Your task to perform on an android device: turn smart compose on in the gmail app Image 0: 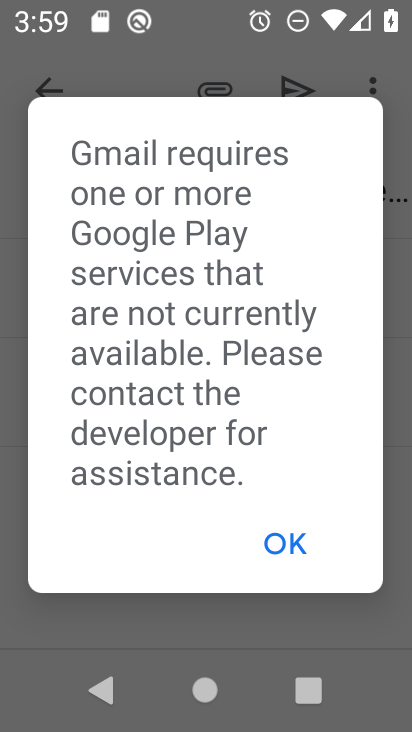
Step 0: press home button
Your task to perform on an android device: turn smart compose on in the gmail app Image 1: 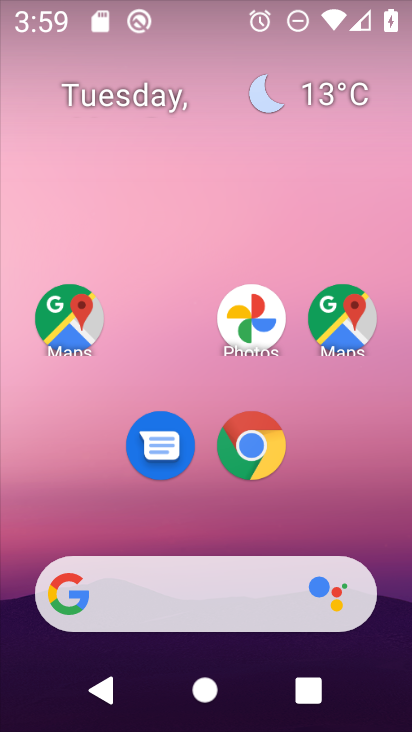
Step 1: drag from (392, 561) to (404, 500)
Your task to perform on an android device: turn smart compose on in the gmail app Image 2: 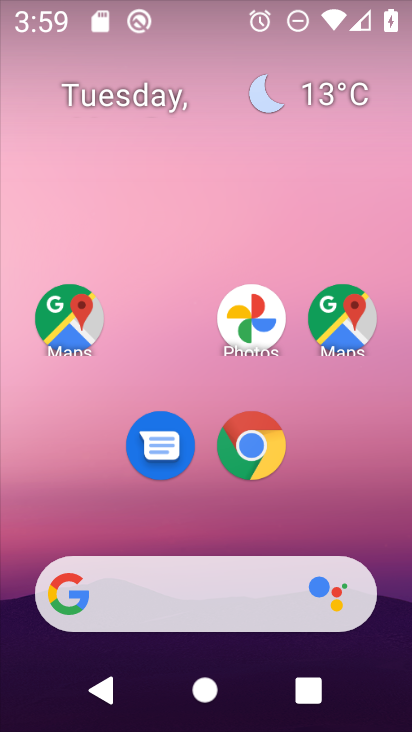
Step 2: drag from (268, 277) to (395, 338)
Your task to perform on an android device: turn smart compose on in the gmail app Image 3: 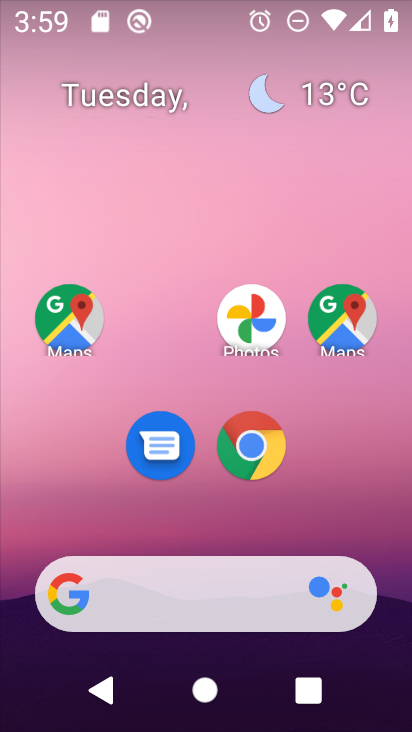
Step 3: drag from (240, 311) to (243, 83)
Your task to perform on an android device: turn smart compose on in the gmail app Image 4: 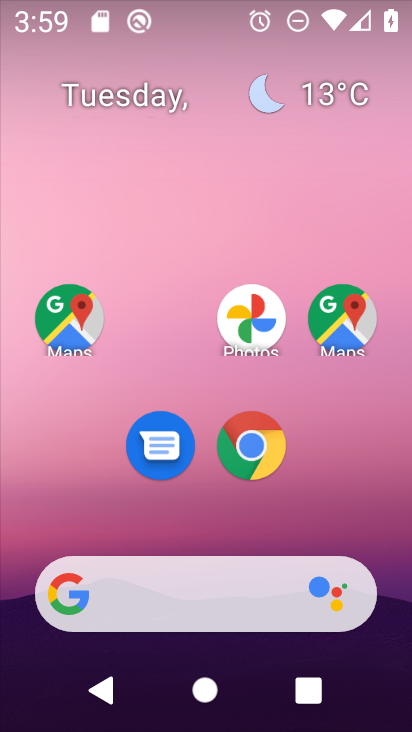
Step 4: drag from (368, 482) to (379, 102)
Your task to perform on an android device: turn smart compose on in the gmail app Image 5: 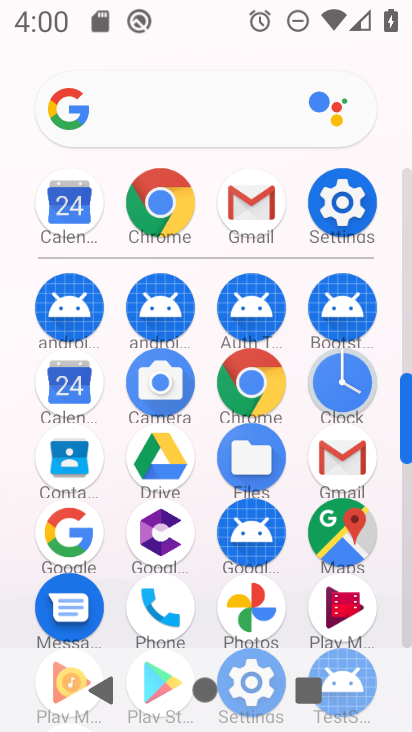
Step 5: click (348, 466)
Your task to perform on an android device: turn smart compose on in the gmail app Image 6: 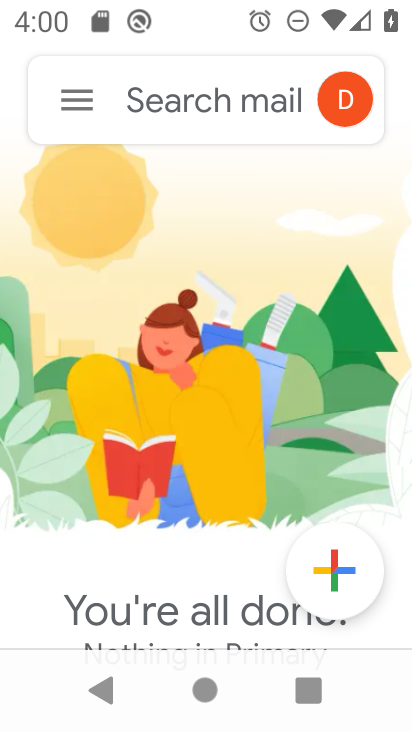
Step 6: click (82, 114)
Your task to perform on an android device: turn smart compose on in the gmail app Image 7: 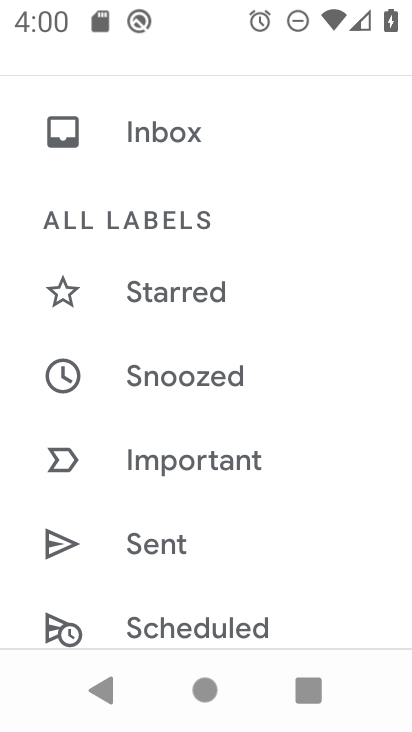
Step 7: drag from (320, 274) to (329, 376)
Your task to perform on an android device: turn smart compose on in the gmail app Image 8: 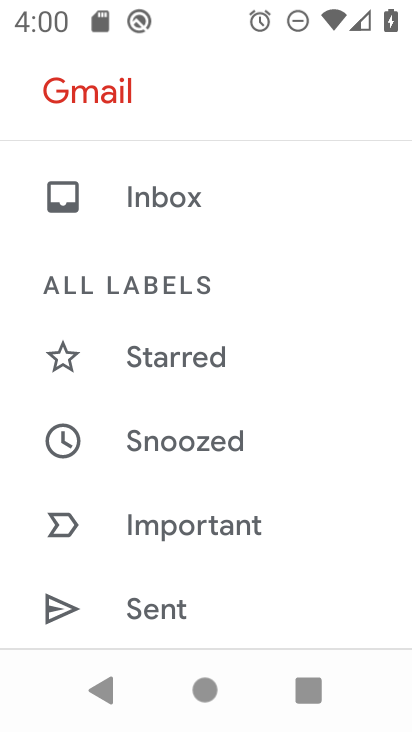
Step 8: drag from (314, 220) to (306, 346)
Your task to perform on an android device: turn smart compose on in the gmail app Image 9: 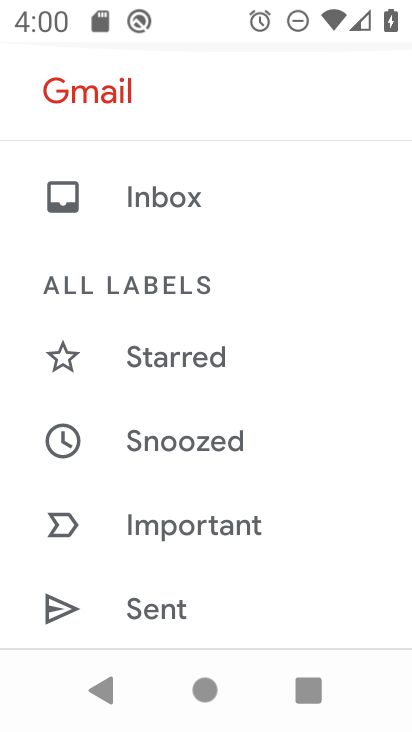
Step 9: drag from (316, 388) to (318, 276)
Your task to perform on an android device: turn smart compose on in the gmail app Image 10: 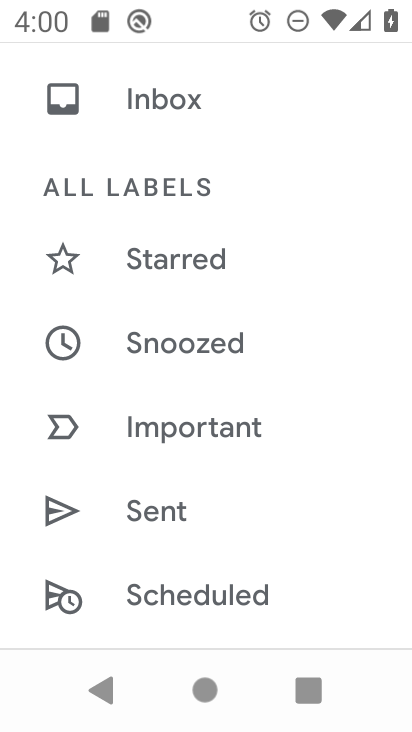
Step 10: drag from (314, 374) to (318, 329)
Your task to perform on an android device: turn smart compose on in the gmail app Image 11: 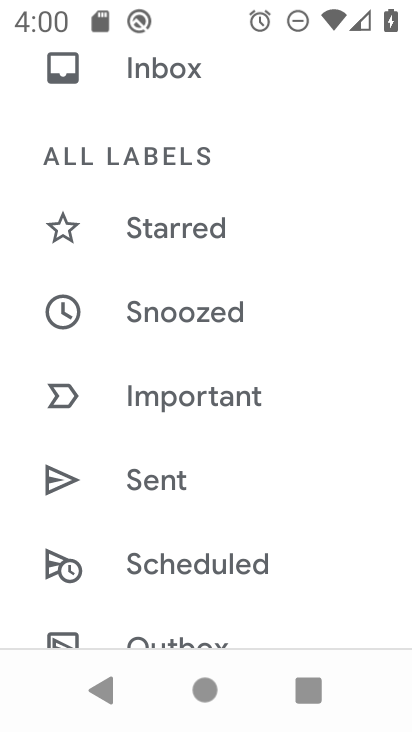
Step 11: drag from (318, 397) to (315, 343)
Your task to perform on an android device: turn smart compose on in the gmail app Image 12: 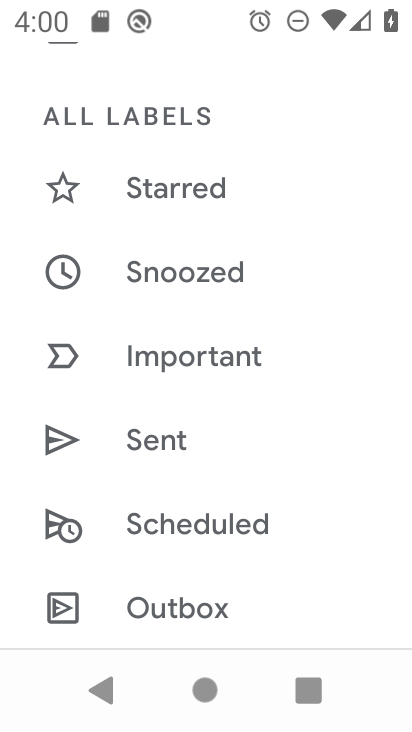
Step 12: drag from (310, 423) to (308, 334)
Your task to perform on an android device: turn smart compose on in the gmail app Image 13: 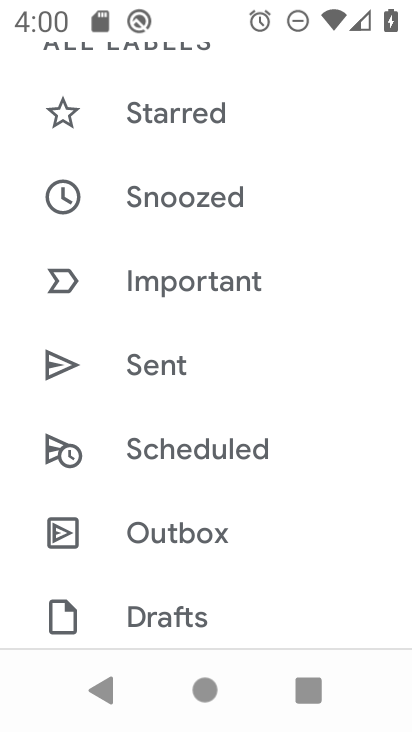
Step 13: drag from (321, 425) to (319, 353)
Your task to perform on an android device: turn smart compose on in the gmail app Image 14: 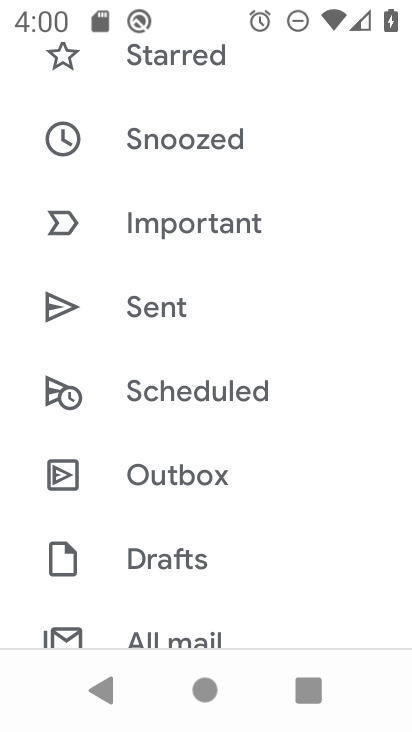
Step 14: drag from (325, 443) to (339, 384)
Your task to perform on an android device: turn smart compose on in the gmail app Image 15: 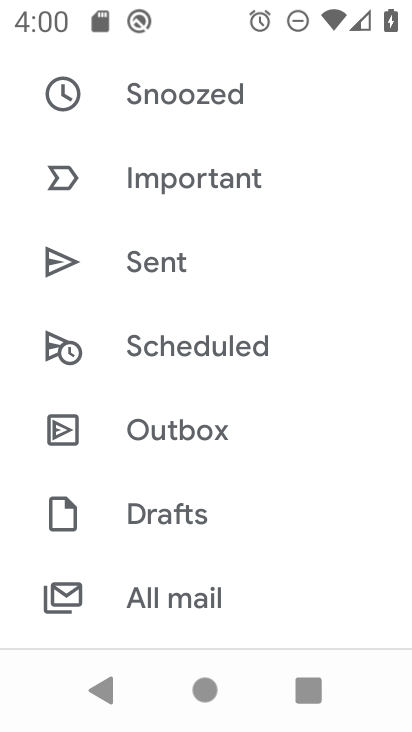
Step 15: drag from (336, 469) to (345, 396)
Your task to perform on an android device: turn smart compose on in the gmail app Image 16: 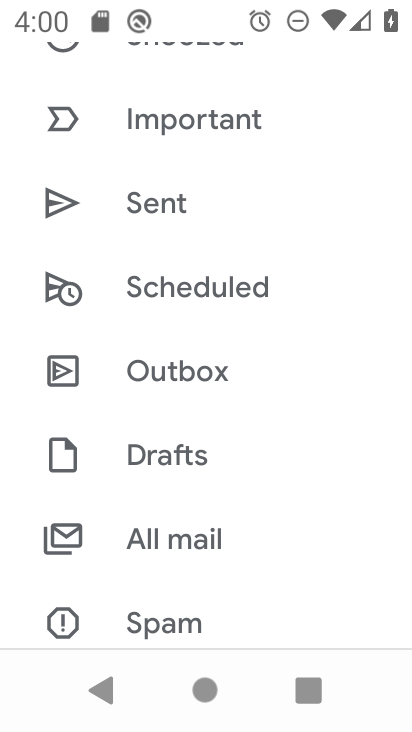
Step 16: drag from (335, 459) to (343, 393)
Your task to perform on an android device: turn smart compose on in the gmail app Image 17: 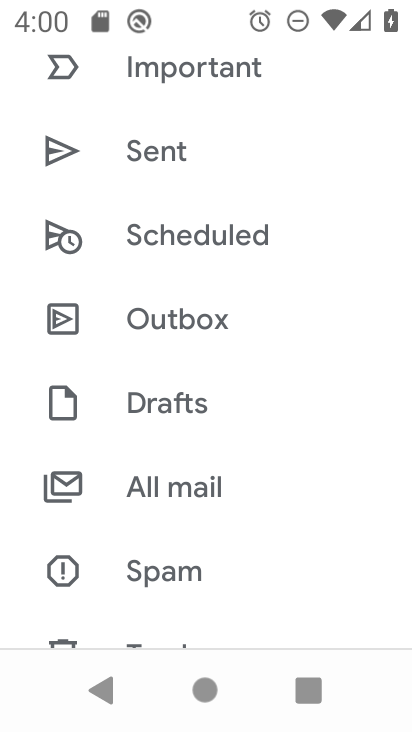
Step 17: drag from (328, 489) to (333, 414)
Your task to perform on an android device: turn smart compose on in the gmail app Image 18: 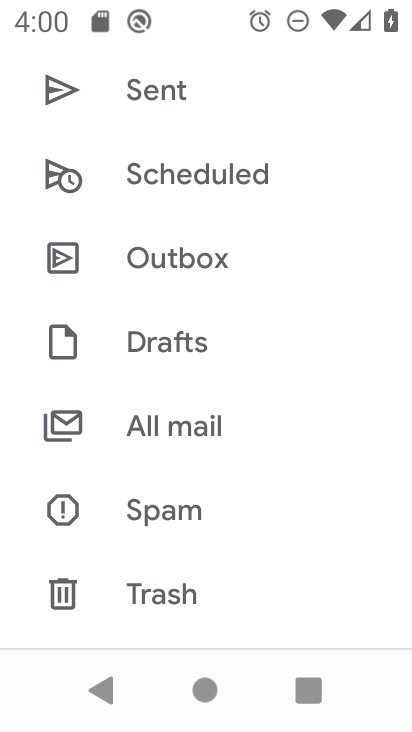
Step 18: drag from (346, 491) to (338, 440)
Your task to perform on an android device: turn smart compose on in the gmail app Image 19: 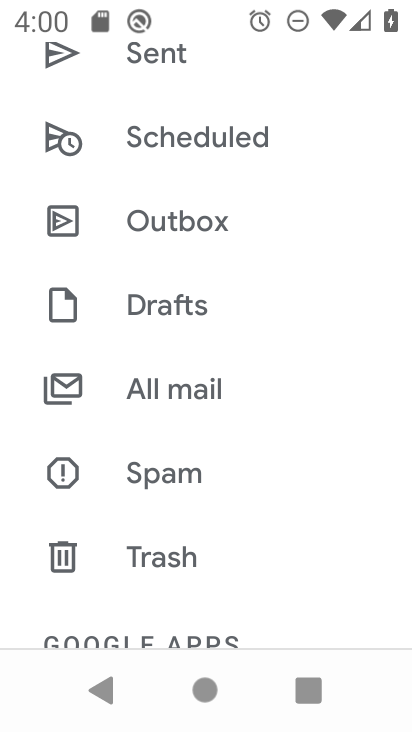
Step 19: drag from (314, 530) to (312, 464)
Your task to perform on an android device: turn smart compose on in the gmail app Image 20: 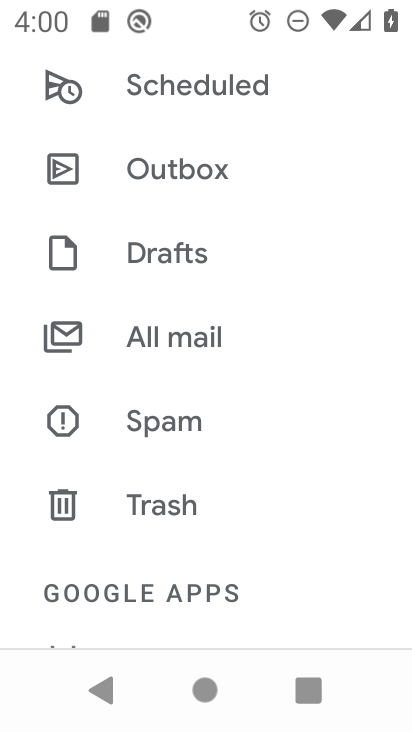
Step 20: drag from (305, 527) to (305, 478)
Your task to perform on an android device: turn smart compose on in the gmail app Image 21: 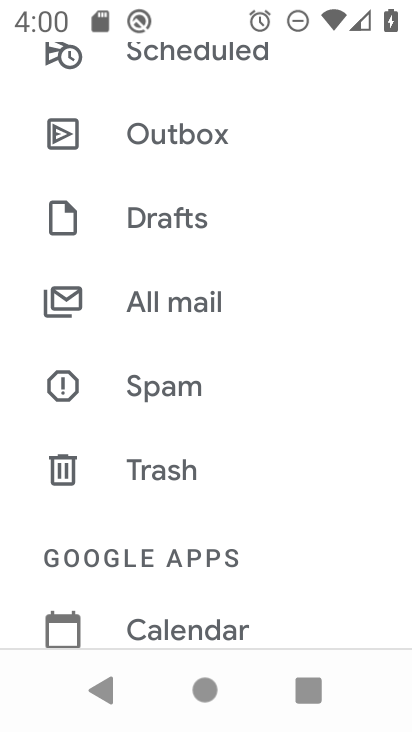
Step 21: drag from (309, 561) to (303, 486)
Your task to perform on an android device: turn smart compose on in the gmail app Image 22: 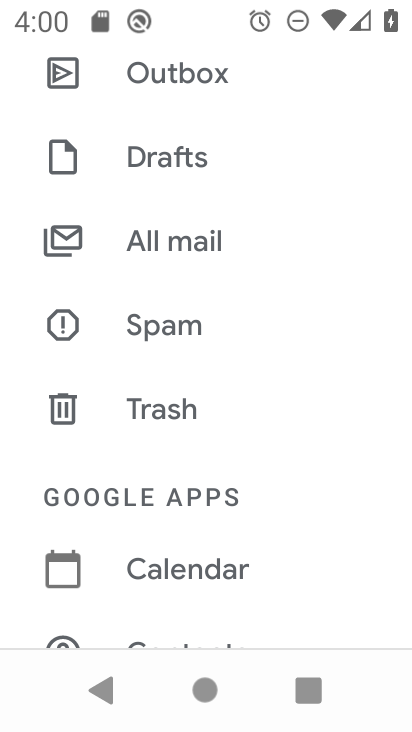
Step 22: drag from (295, 558) to (293, 497)
Your task to perform on an android device: turn smart compose on in the gmail app Image 23: 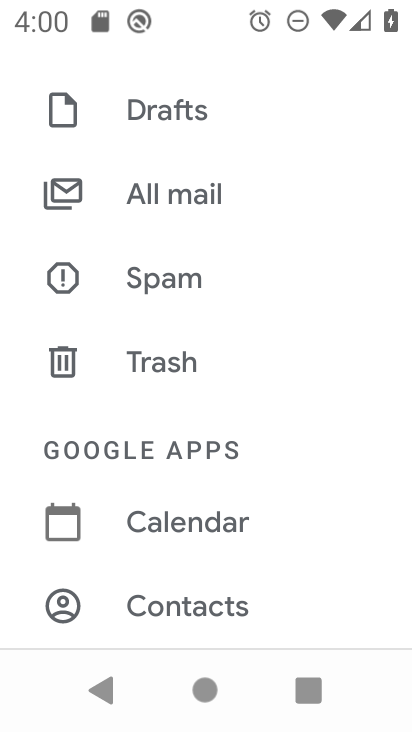
Step 23: drag from (295, 560) to (280, 505)
Your task to perform on an android device: turn smart compose on in the gmail app Image 24: 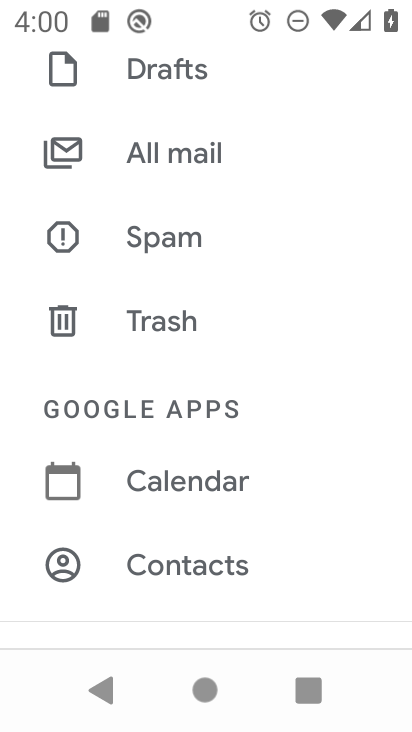
Step 24: drag from (289, 574) to (310, 494)
Your task to perform on an android device: turn smart compose on in the gmail app Image 25: 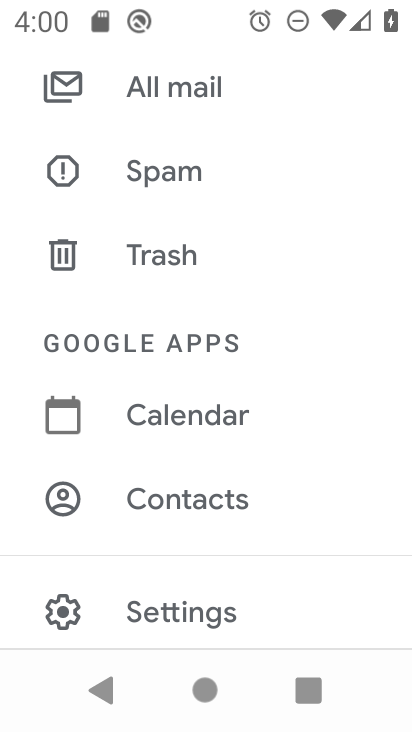
Step 25: drag from (307, 578) to (305, 515)
Your task to perform on an android device: turn smart compose on in the gmail app Image 26: 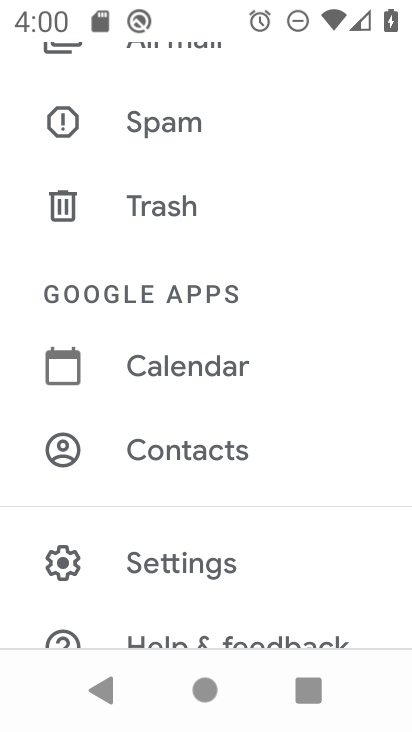
Step 26: click (276, 553)
Your task to perform on an android device: turn smart compose on in the gmail app Image 27: 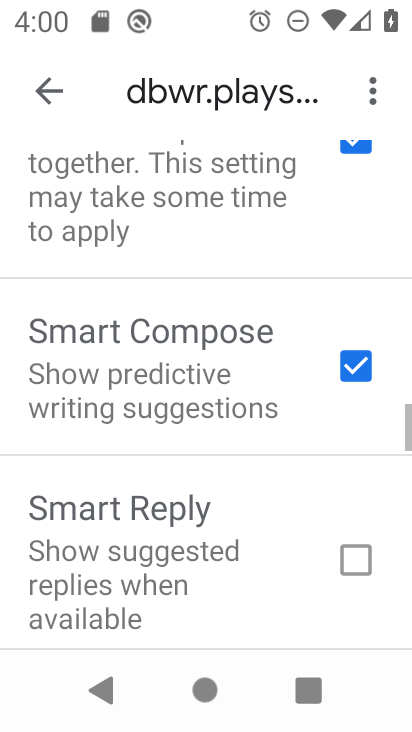
Step 27: task complete